Your task to perform on an android device: open chrome privacy settings Image 0: 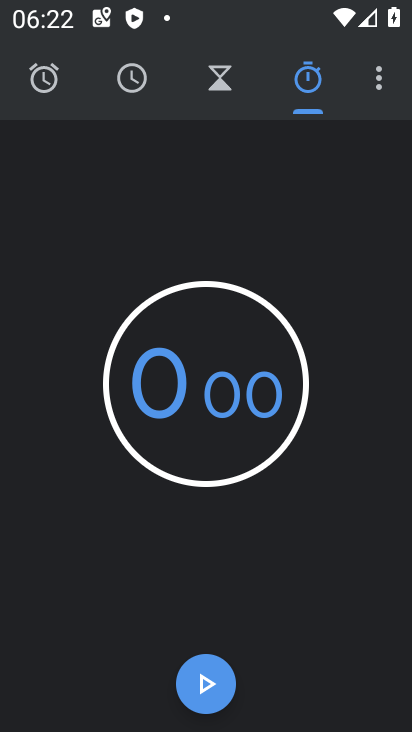
Step 0: press home button
Your task to perform on an android device: open chrome privacy settings Image 1: 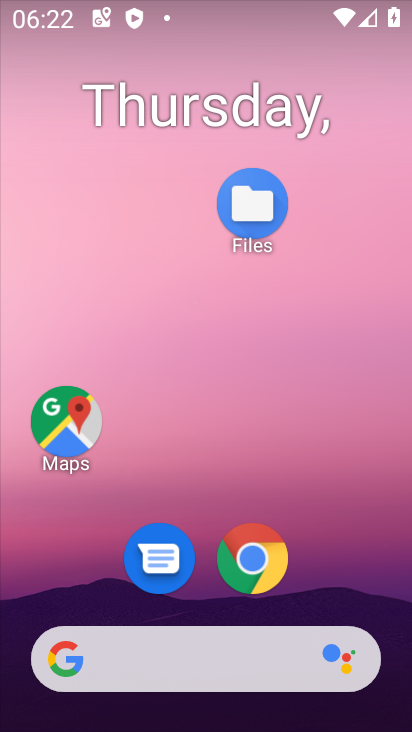
Step 1: click (262, 576)
Your task to perform on an android device: open chrome privacy settings Image 2: 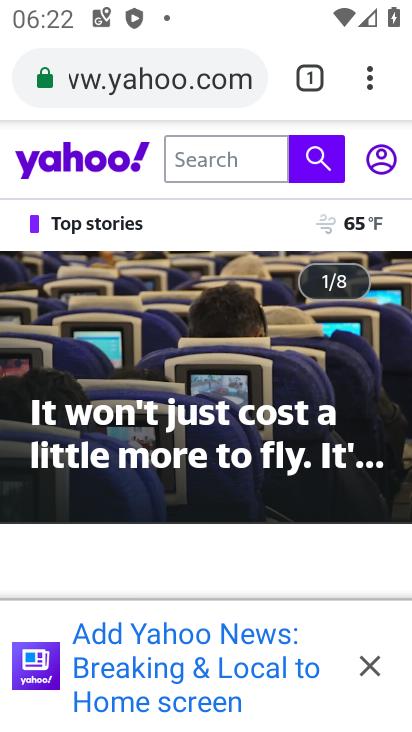
Step 2: click (372, 82)
Your task to perform on an android device: open chrome privacy settings Image 3: 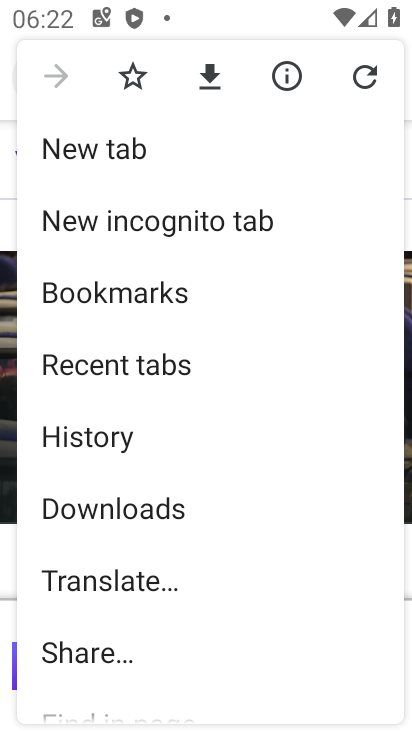
Step 3: drag from (162, 604) to (162, 260)
Your task to perform on an android device: open chrome privacy settings Image 4: 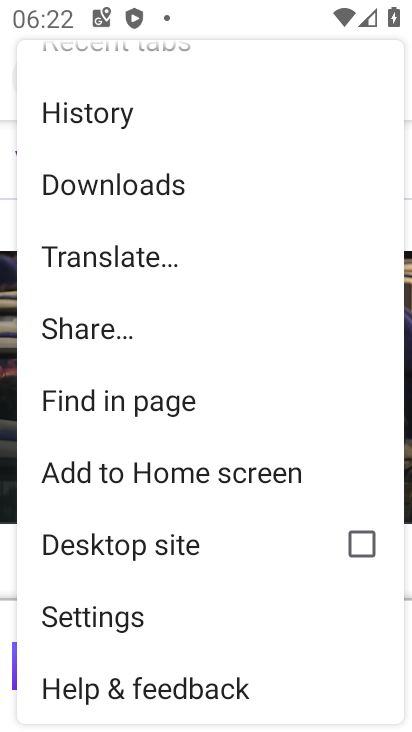
Step 4: click (99, 631)
Your task to perform on an android device: open chrome privacy settings Image 5: 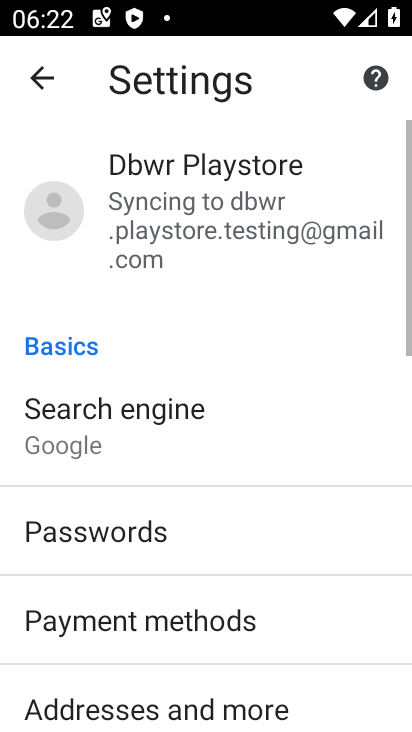
Step 5: drag from (132, 622) to (149, 342)
Your task to perform on an android device: open chrome privacy settings Image 6: 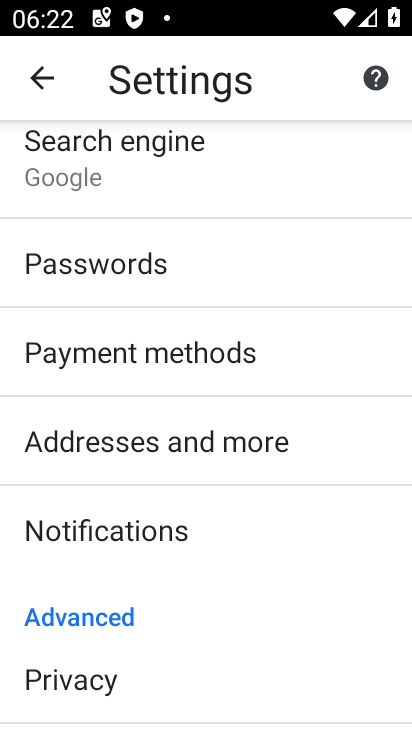
Step 6: click (95, 695)
Your task to perform on an android device: open chrome privacy settings Image 7: 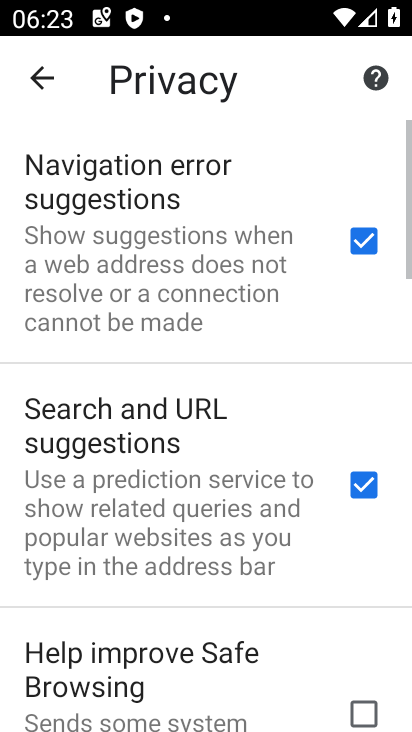
Step 7: task complete